Your task to perform on an android device: see creations saved in the google photos Image 0: 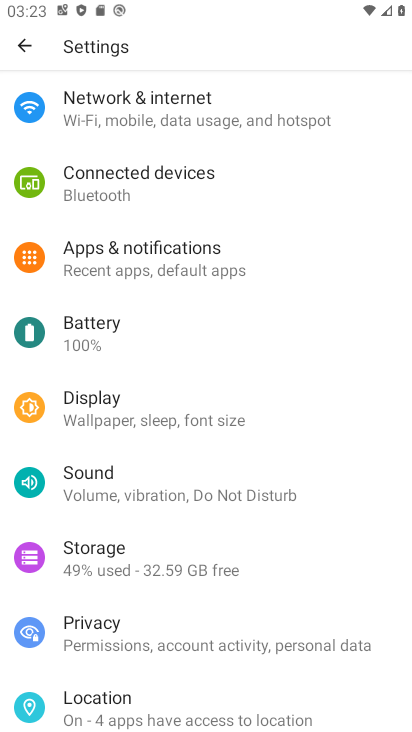
Step 0: click (10, 26)
Your task to perform on an android device: see creations saved in the google photos Image 1: 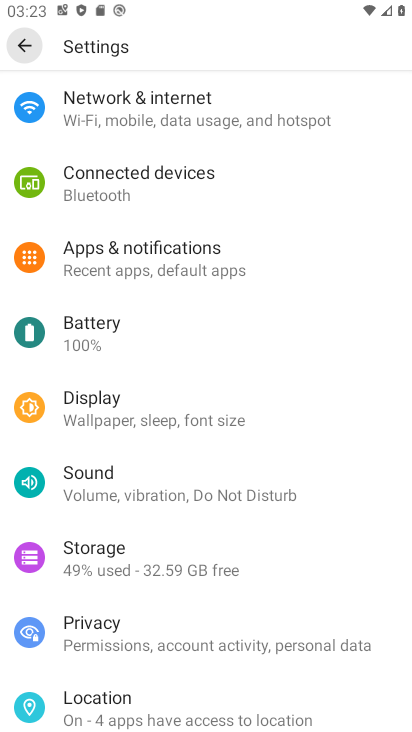
Step 1: click (22, 42)
Your task to perform on an android device: see creations saved in the google photos Image 2: 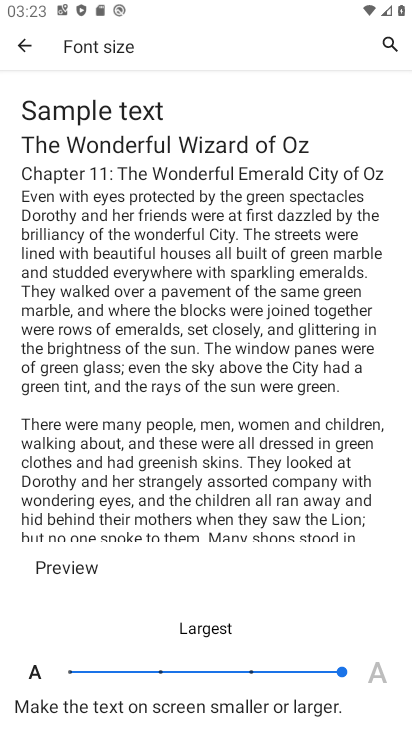
Step 2: click (20, 41)
Your task to perform on an android device: see creations saved in the google photos Image 3: 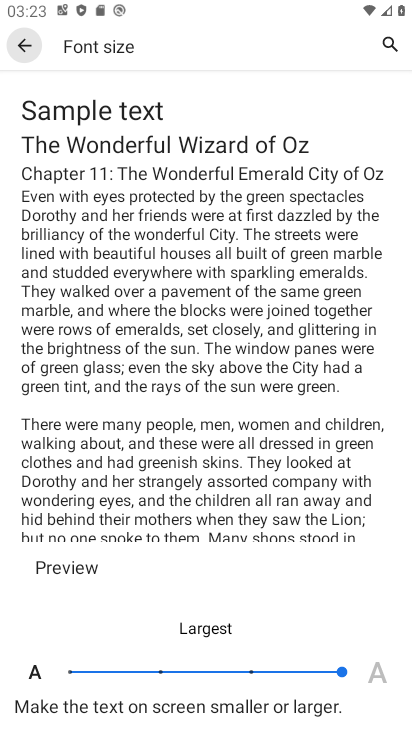
Step 3: click (20, 40)
Your task to perform on an android device: see creations saved in the google photos Image 4: 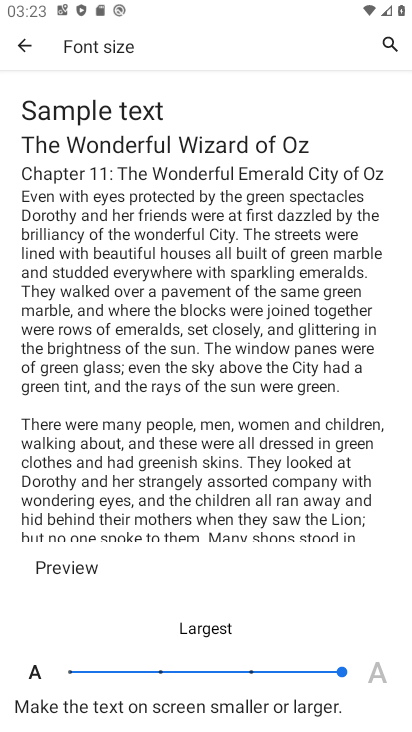
Step 4: click (20, 40)
Your task to perform on an android device: see creations saved in the google photos Image 5: 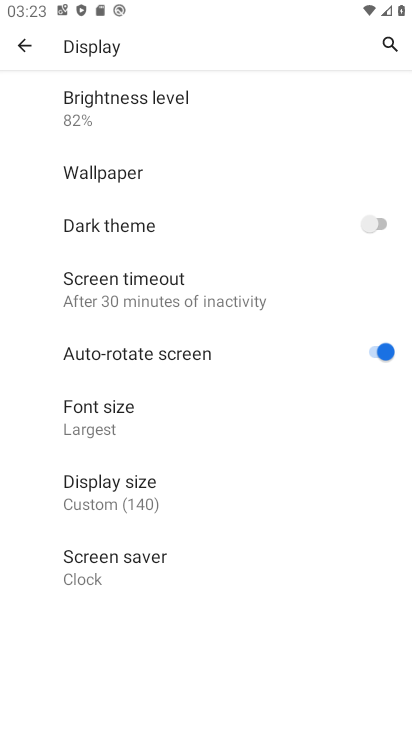
Step 5: press back button
Your task to perform on an android device: see creations saved in the google photos Image 6: 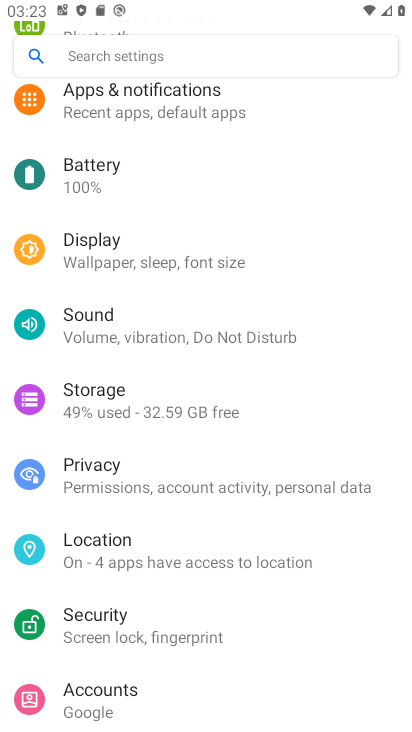
Step 6: press back button
Your task to perform on an android device: see creations saved in the google photos Image 7: 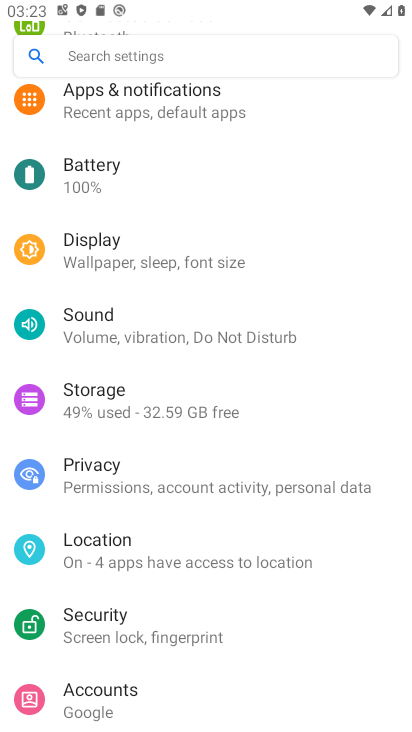
Step 7: press back button
Your task to perform on an android device: see creations saved in the google photos Image 8: 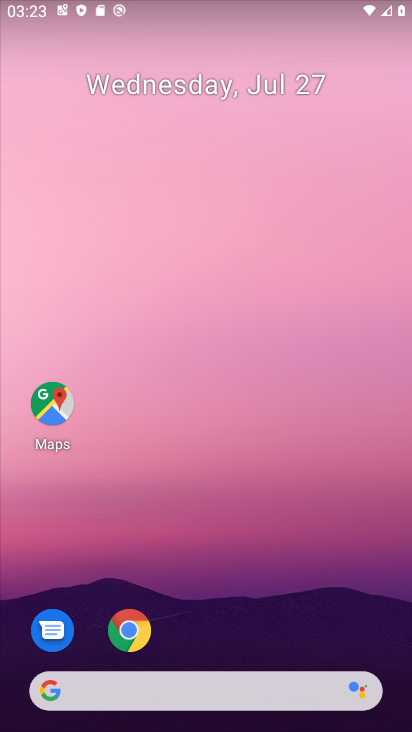
Step 8: drag from (199, 497) to (119, 218)
Your task to perform on an android device: see creations saved in the google photos Image 9: 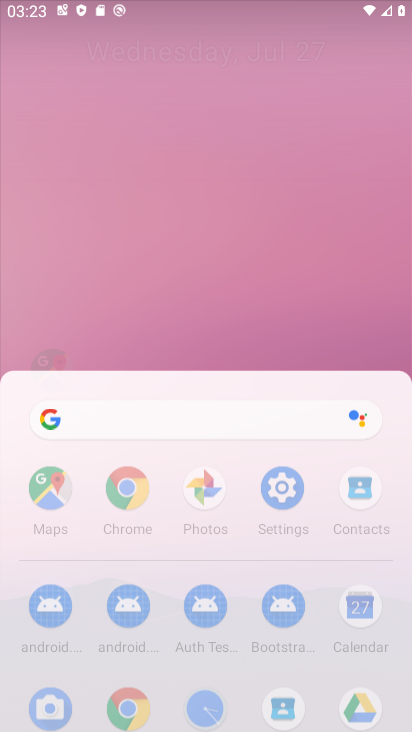
Step 9: drag from (195, 498) to (177, 340)
Your task to perform on an android device: see creations saved in the google photos Image 10: 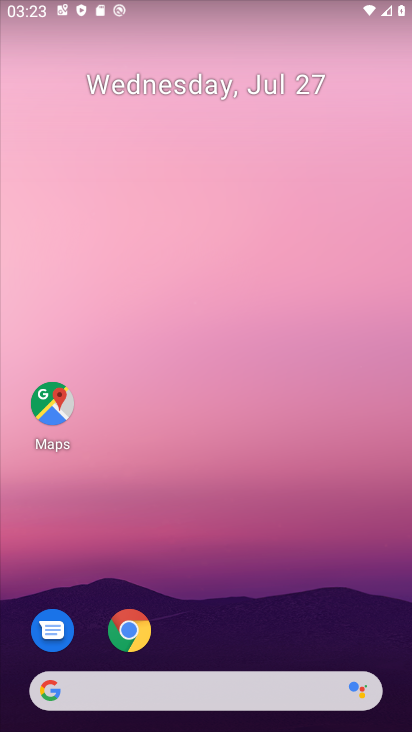
Step 10: drag from (282, 614) to (242, 412)
Your task to perform on an android device: see creations saved in the google photos Image 11: 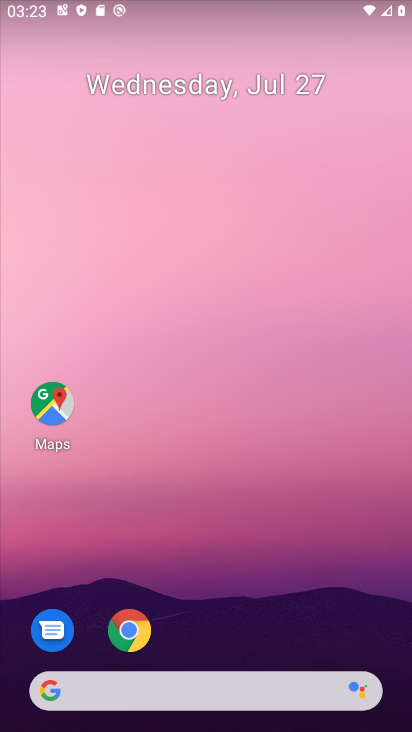
Step 11: drag from (191, 302) to (171, 138)
Your task to perform on an android device: see creations saved in the google photos Image 12: 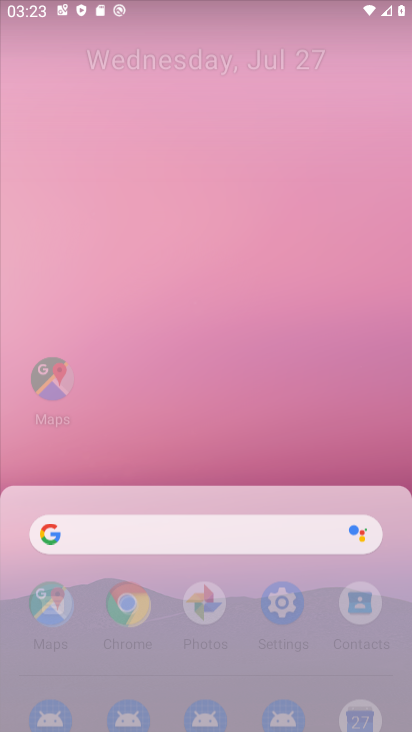
Step 12: drag from (288, 497) to (228, 288)
Your task to perform on an android device: see creations saved in the google photos Image 13: 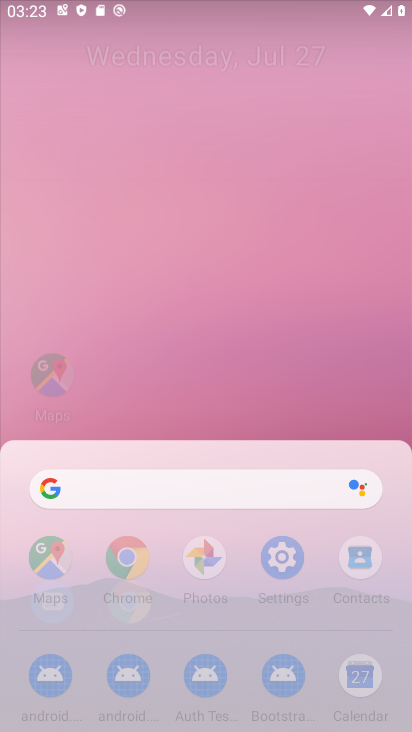
Step 13: drag from (274, 590) to (200, 200)
Your task to perform on an android device: see creations saved in the google photos Image 14: 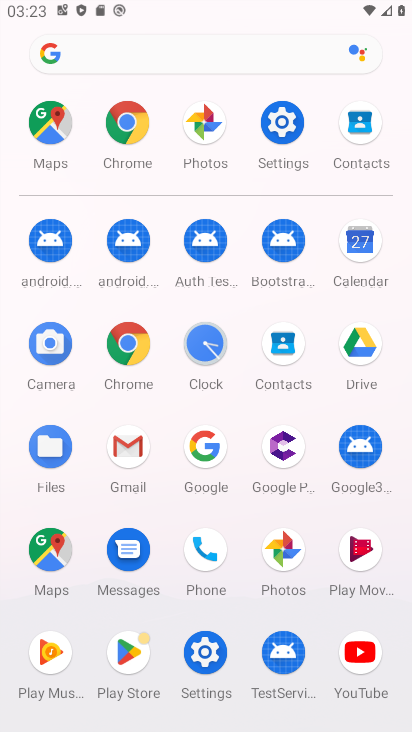
Step 14: click (280, 544)
Your task to perform on an android device: see creations saved in the google photos Image 15: 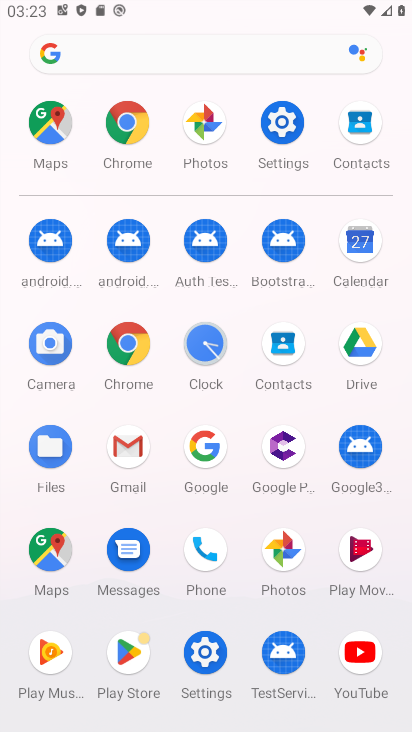
Step 15: click (280, 544)
Your task to perform on an android device: see creations saved in the google photos Image 16: 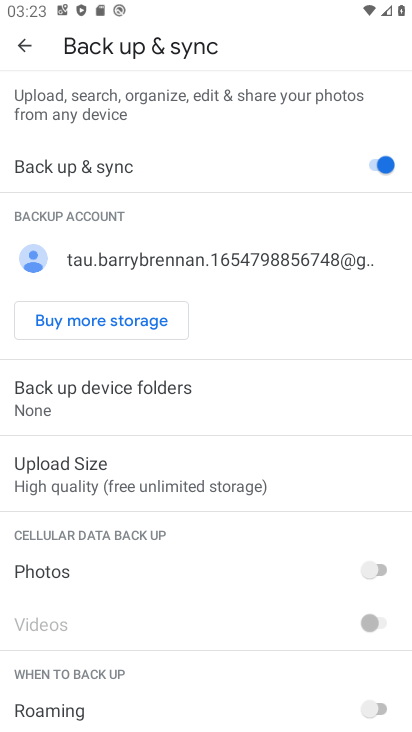
Step 16: task complete